Your task to perform on an android device: Open sound settings Image 0: 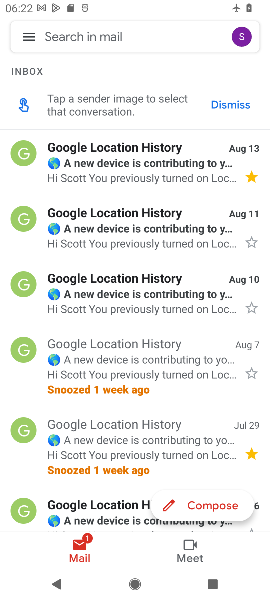
Step 0: press home button
Your task to perform on an android device: Open sound settings Image 1: 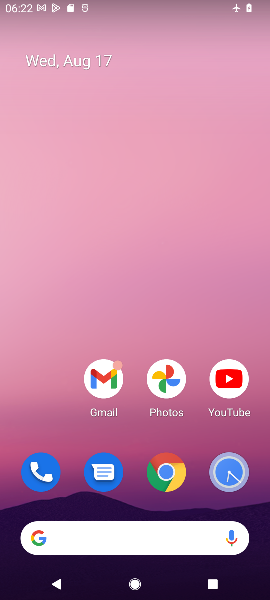
Step 1: drag from (56, 343) to (87, 31)
Your task to perform on an android device: Open sound settings Image 2: 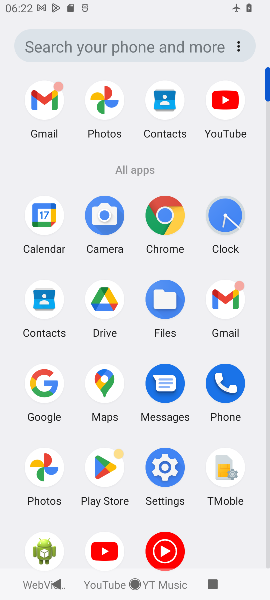
Step 2: click (165, 467)
Your task to perform on an android device: Open sound settings Image 3: 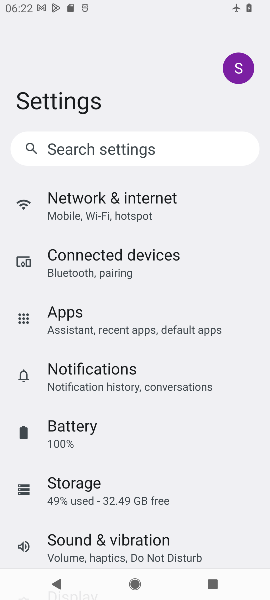
Step 3: drag from (160, 430) to (160, 34)
Your task to perform on an android device: Open sound settings Image 4: 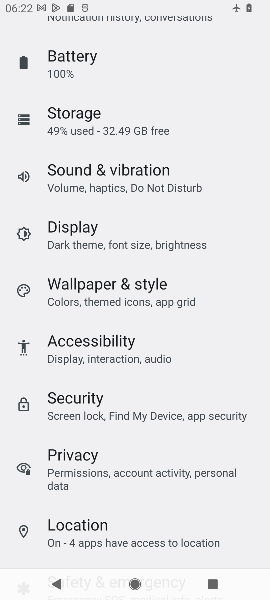
Step 4: click (144, 192)
Your task to perform on an android device: Open sound settings Image 5: 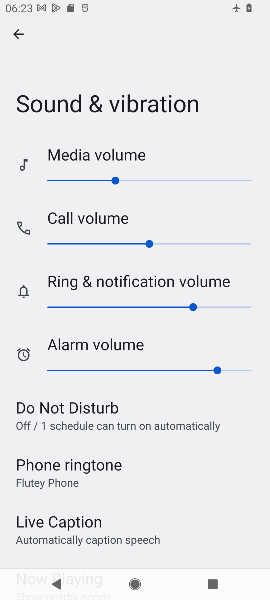
Step 5: task complete